Your task to perform on an android device: Go to Amazon Image 0: 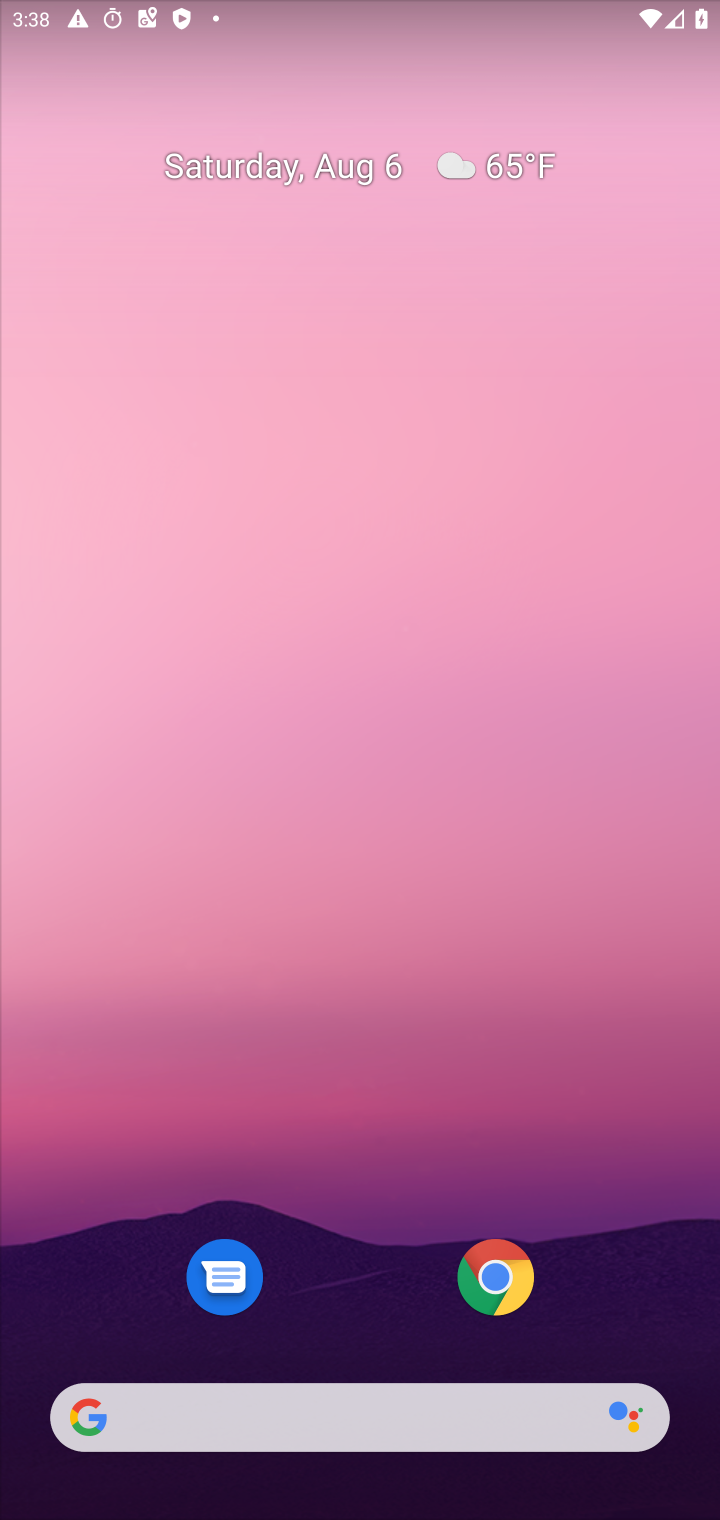
Step 0: drag from (313, 1403) to (378, 471)
Your task to perform on an android device: Go to Amazon Image 1: 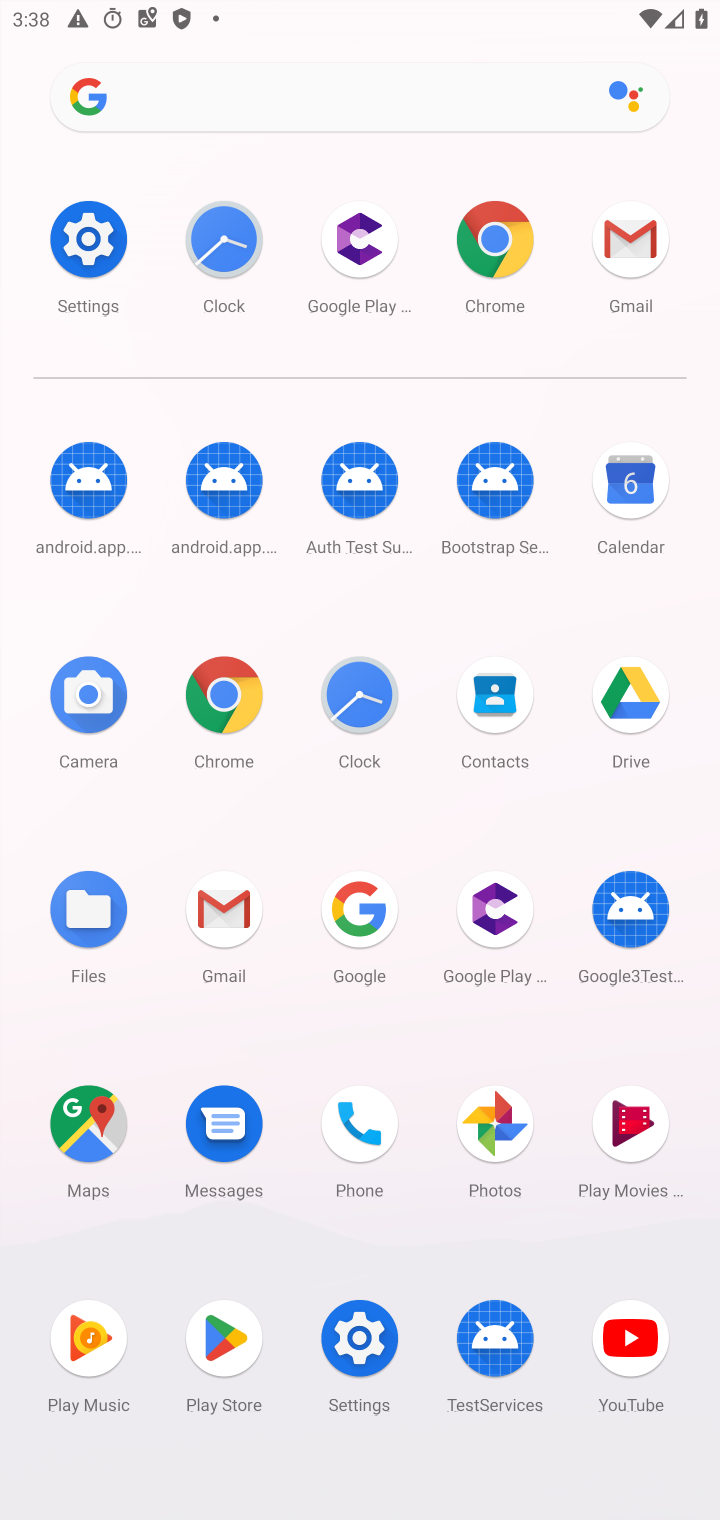
Step 1: click (237, 674)
Your task to perform on an android device: Go to Amazon Image 2: 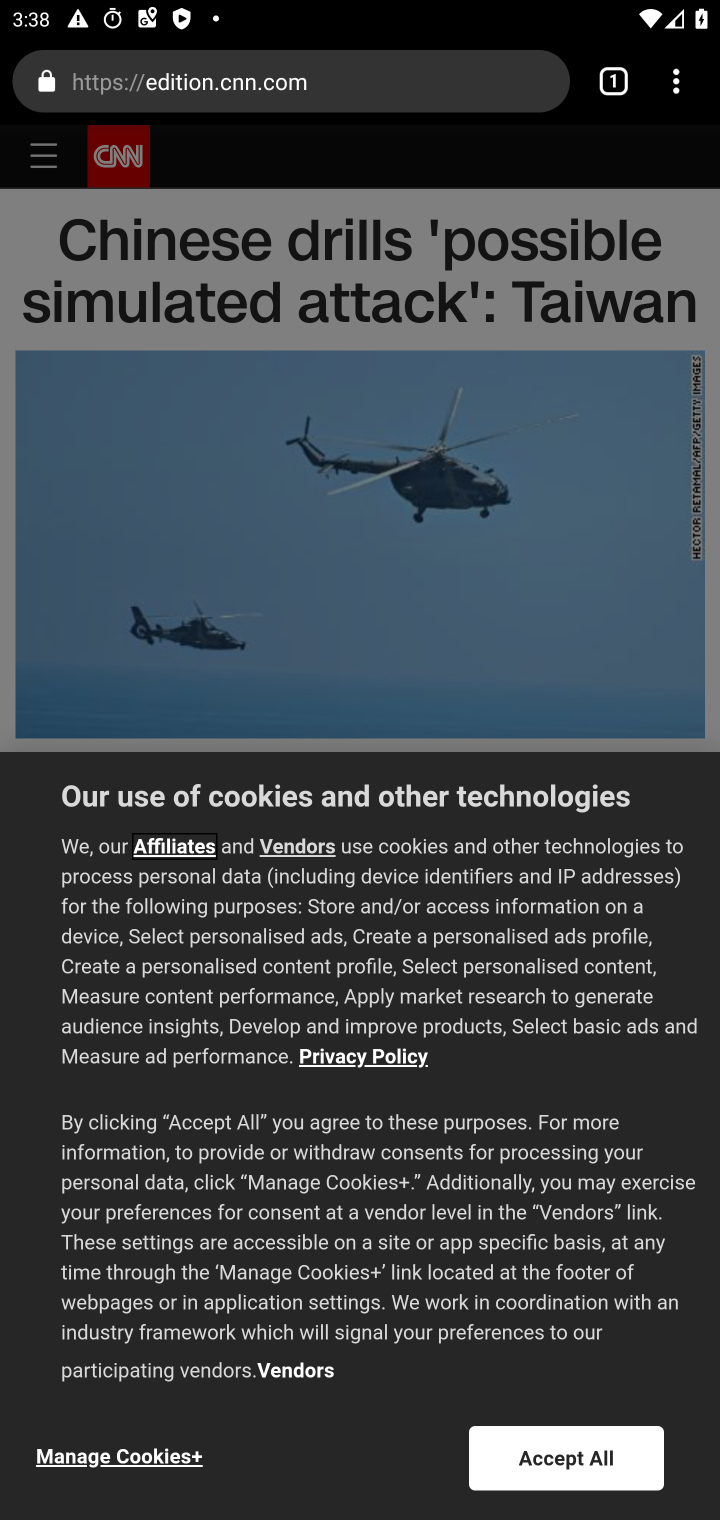
Step 2: click (679, 69)
Your task to perform on an android device: Go to Amazon Image 3: 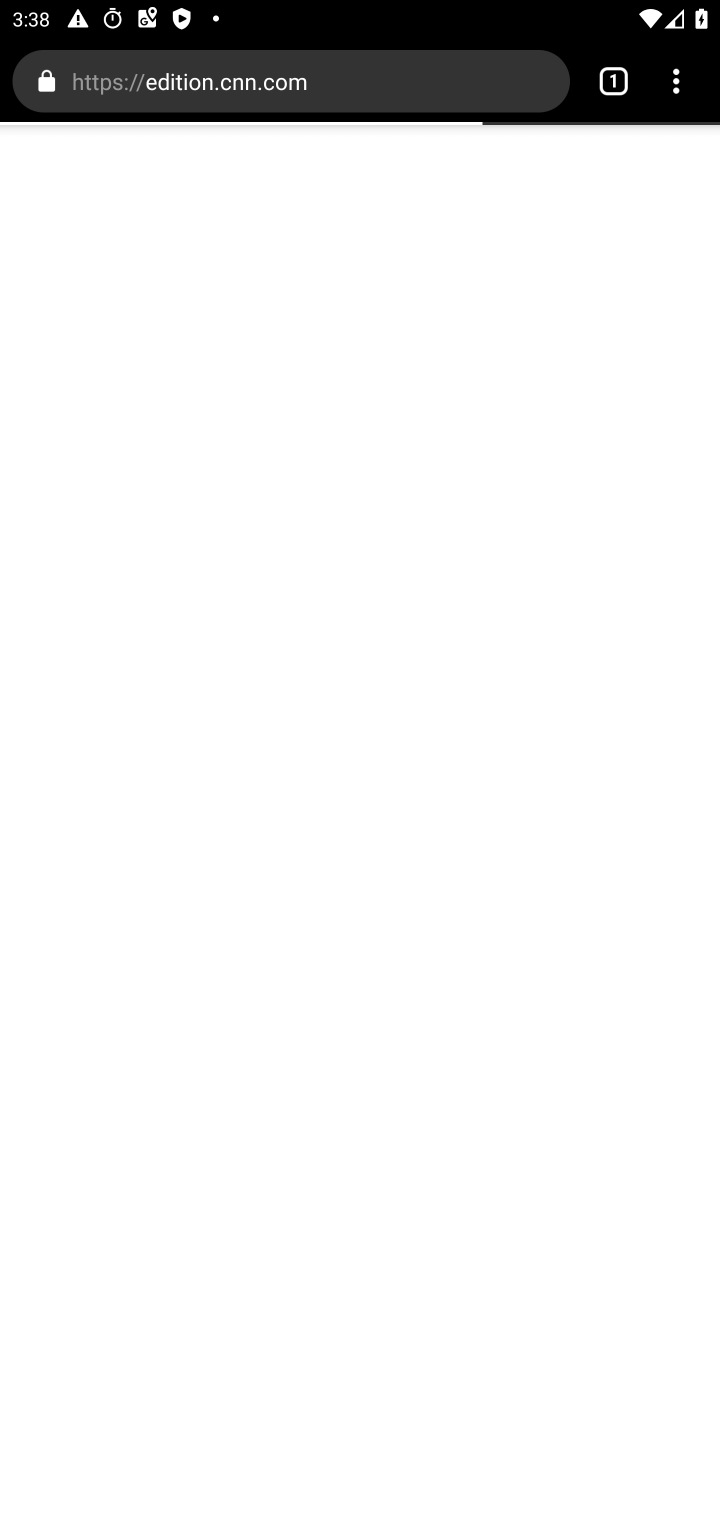
Step 3: drag from (671, 72) to (506, 144)
Your task to perform on an android device: Go to Amazon Image 4: 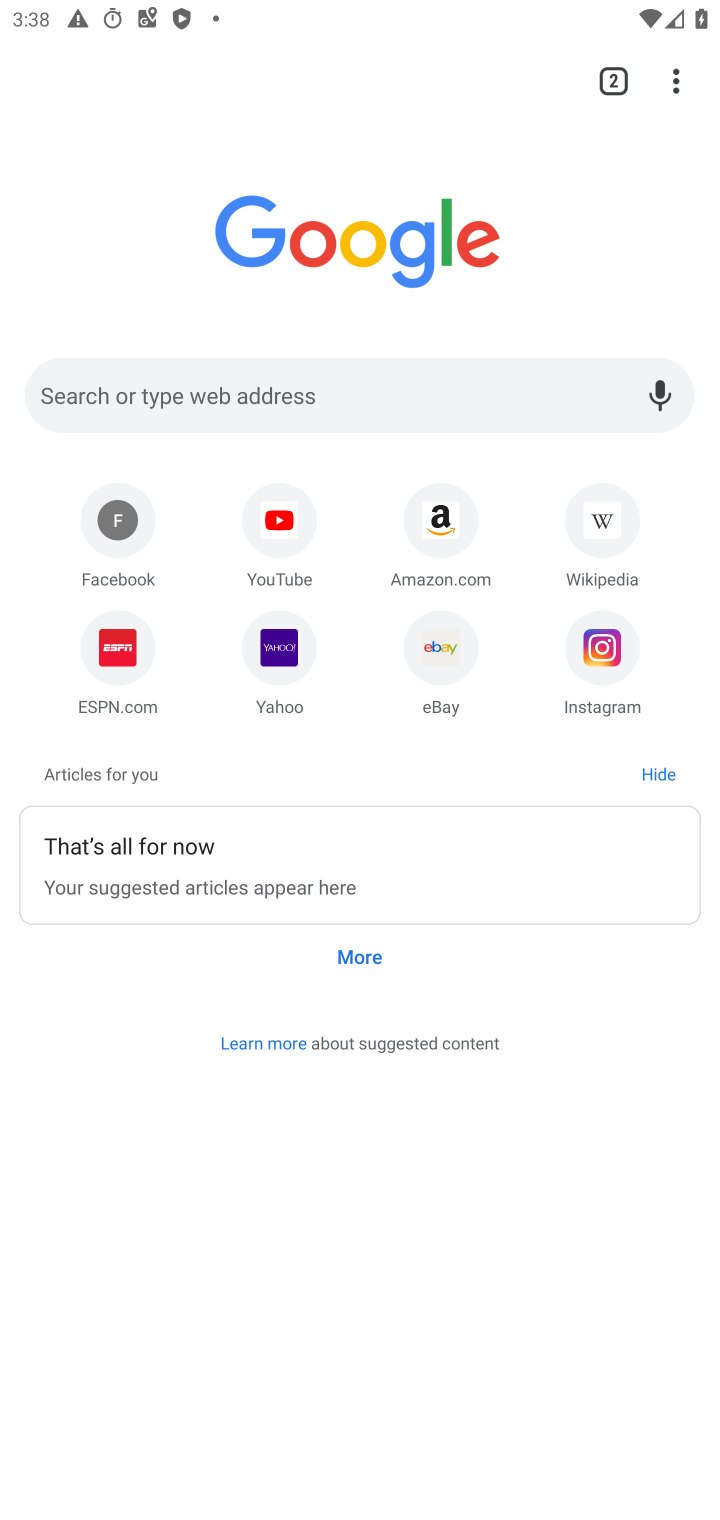
Step 4: click (452, 516)
Your task to perform on an android device: Go to Amazon Image 5: 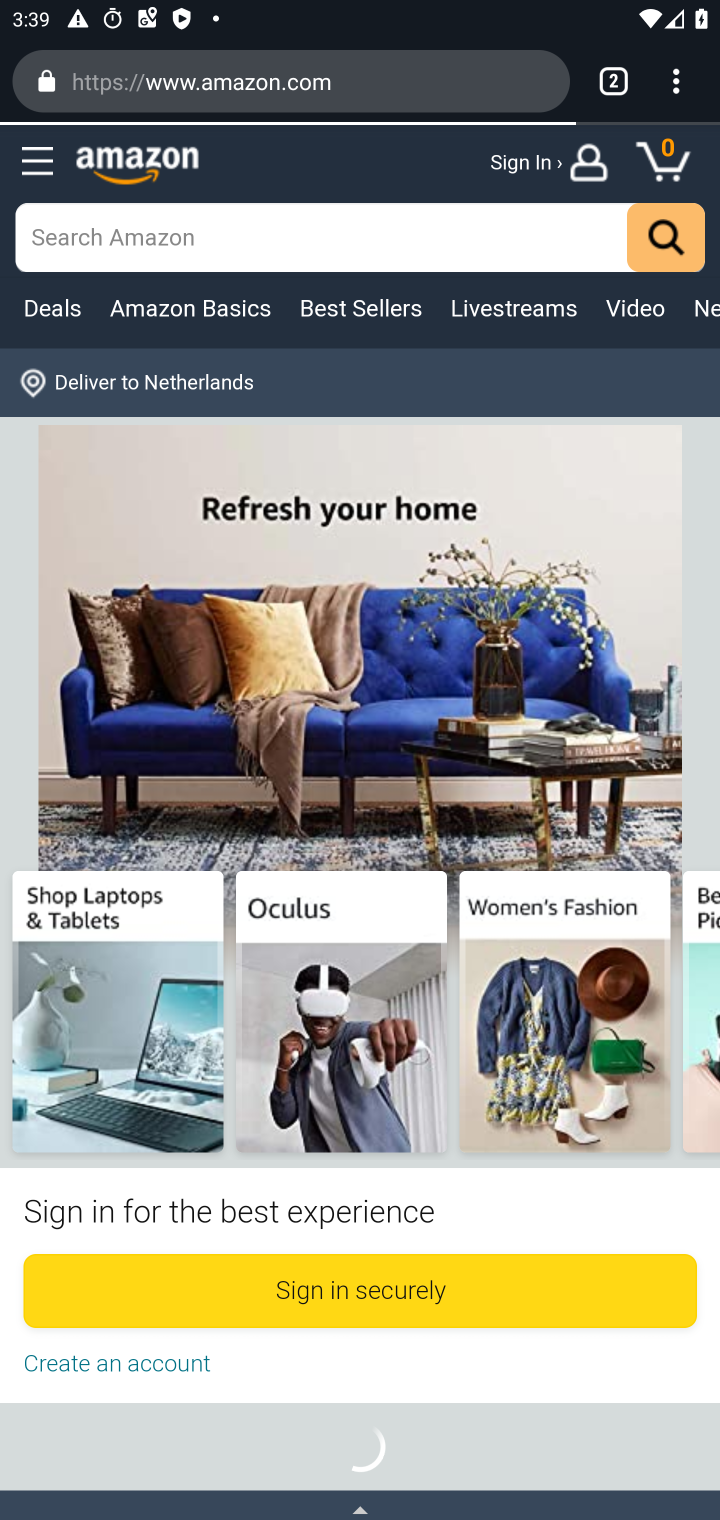
Step 5: task complete